Your task to perform on an android device: all mails in gmail Image 0: 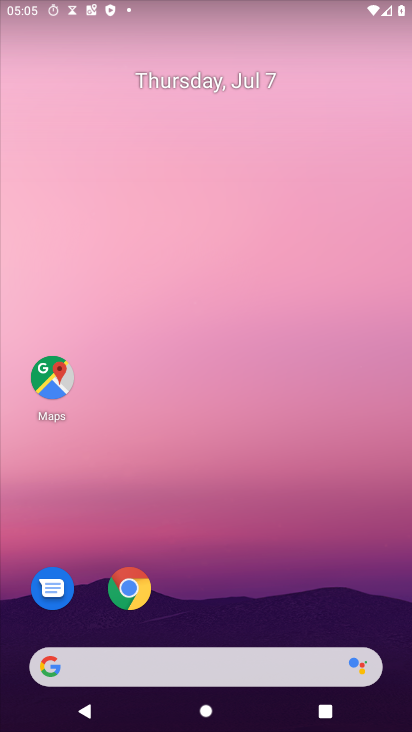
Step 0: press home button
Your task to perform on an android device: all mails in gmail Image 1: 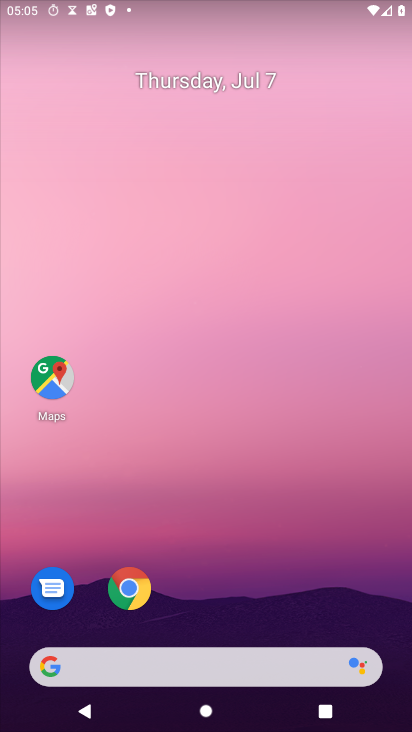
Step 1: drag from (239, 615) to (268, 193)
Your task to perform on an android device: all mails in gmail Image 2: 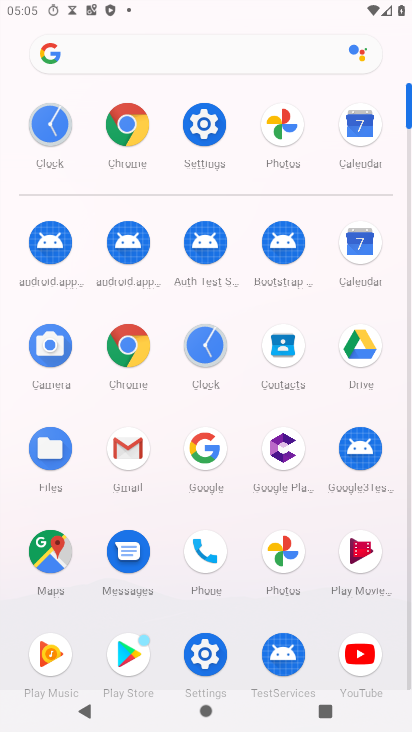
Step 2: click (130, 445)
Your task to perform on an android device: all mails in gmail Image 3: 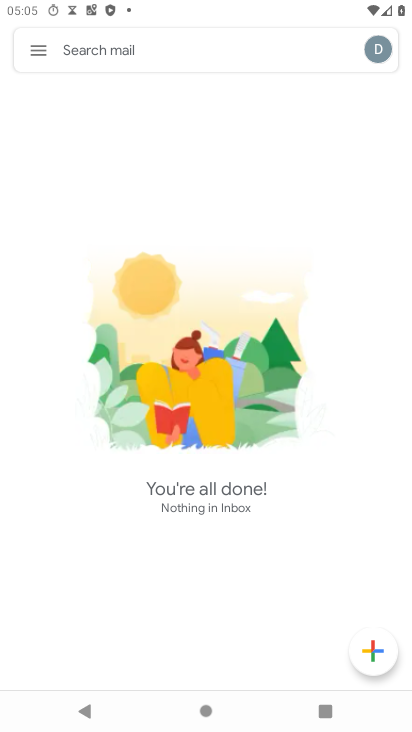
Step 3: click (38, 48)
Your task to perform on an android device: all mails in gmail Image 4: 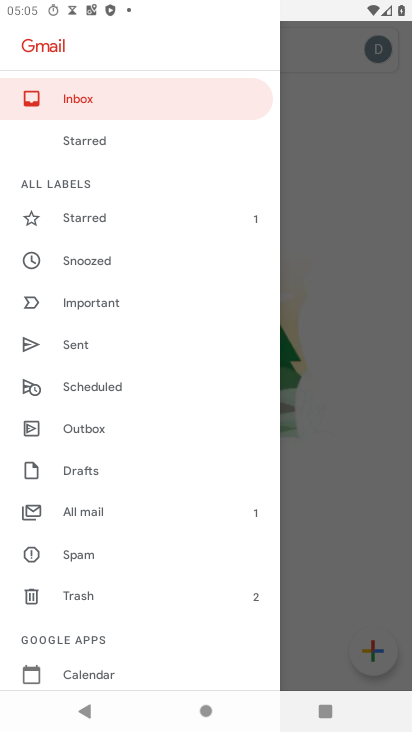
Step 4: click (93, 513)
Your task to perform on an android device: all mails in gmail Image 5: 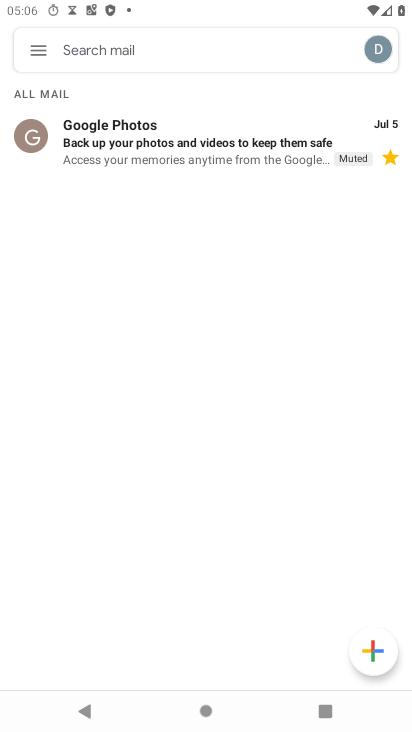
Step 5: task complete